Your task to perform on an android device: delete browsing data in the chrome app Image 0: 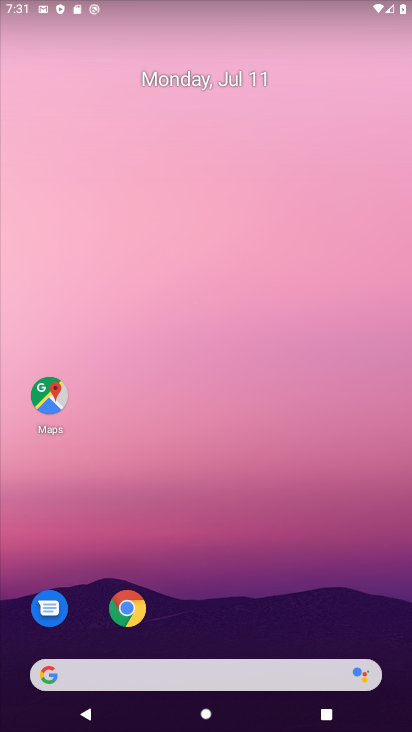
Step 0: click (296, 628)
Your task to perform on an android device: delete browsing data in the chrome app Image 1: 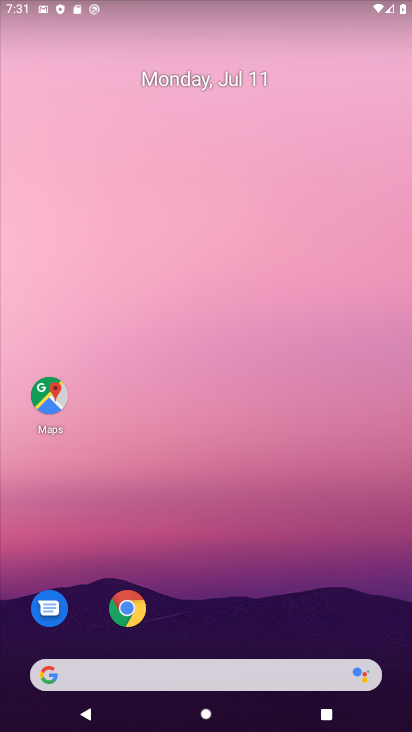
Step 1: click (126, 624)
Your task to perform on an android device: delete browsing data in the chrome app Image 2: 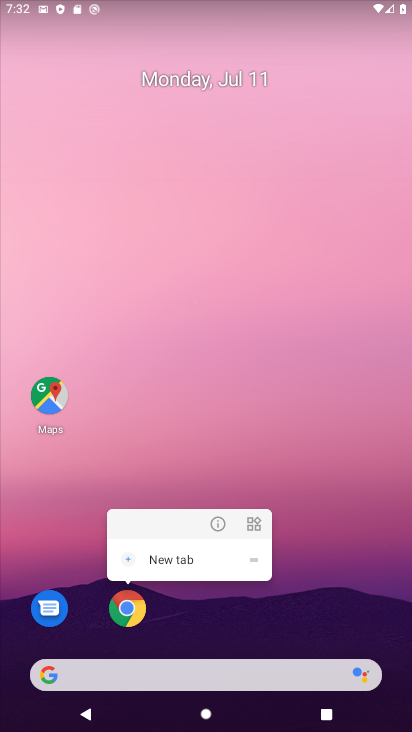
Step 2: click (126, 624)
Your task to perform on an android device: delete browsing data in the chrome app Image 3: 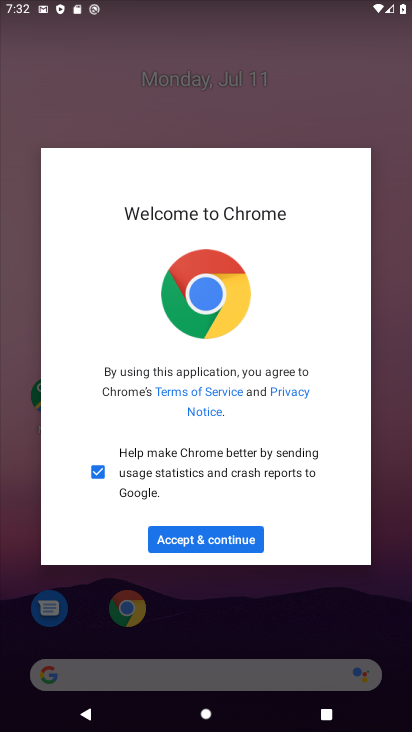
Step 3: click (245, 534)
Your task to perform on an android device: delete browsing data in the chrome app Image 4: 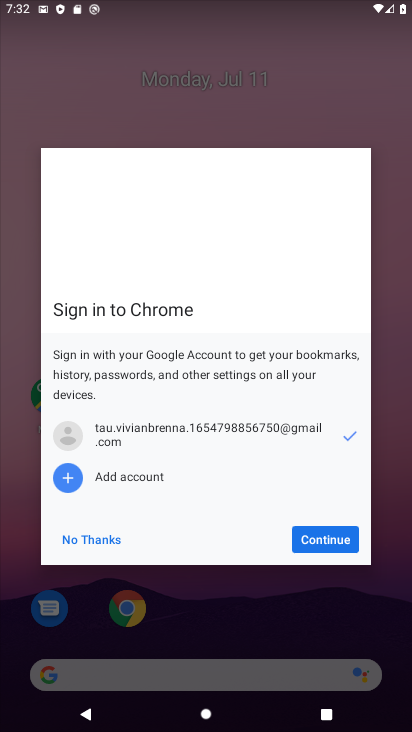
Step 4: click (319, 537)
Your task to perform on an android device: delete browsing data in the chrome app Image 5: 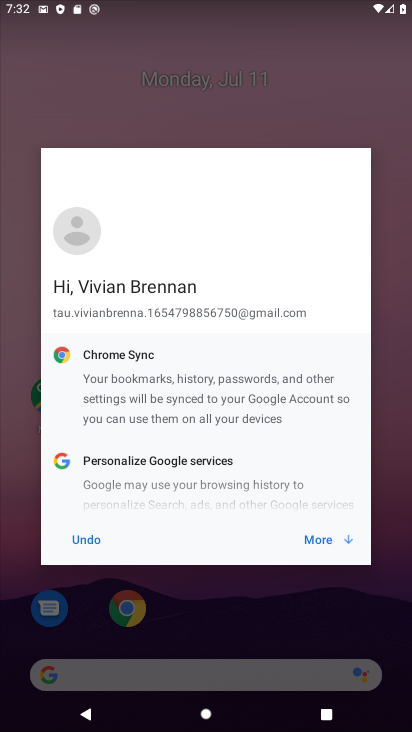
Step 5: click (319, 537)
Your task to perform on an android device: delete browsing data in the chrome app Image 6: 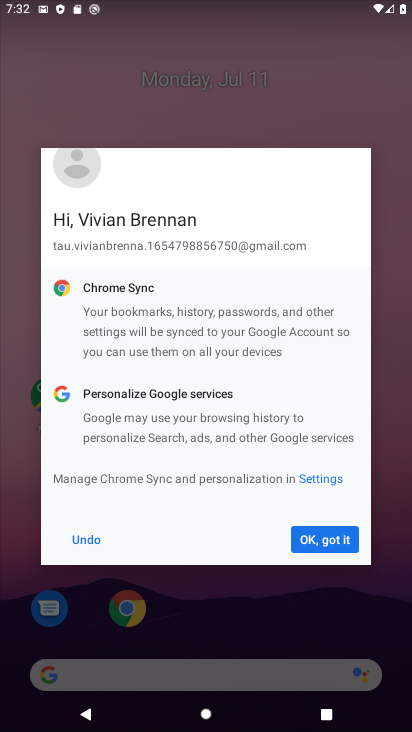
Step 6: click (319, 537)
Your task to perform on an android device: delete browsing data in the chrome app Image 7: 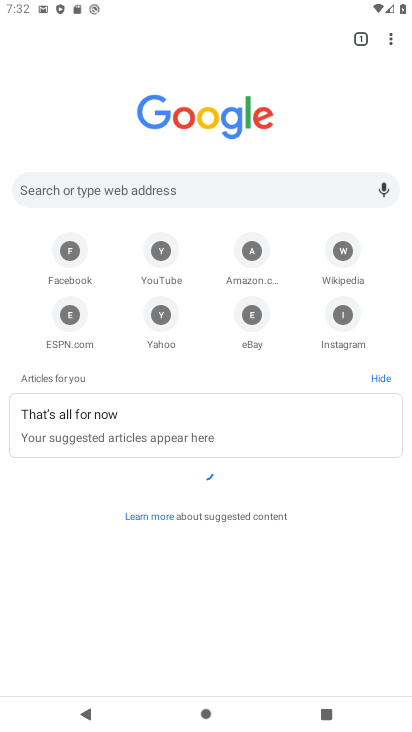
Step 7: click (386, 33)
Your task to perform on an android device: delete browsing data in the chrome app Image 8: 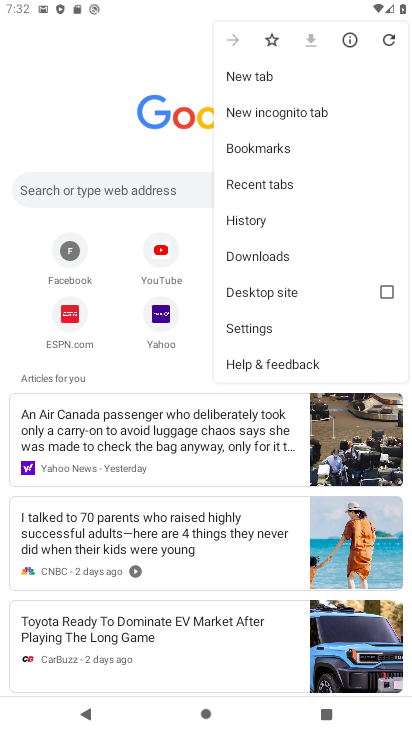
Step 8: click (268, 225)
Your task to perform on an android device: delete browsing data in the chrome app Image 9: 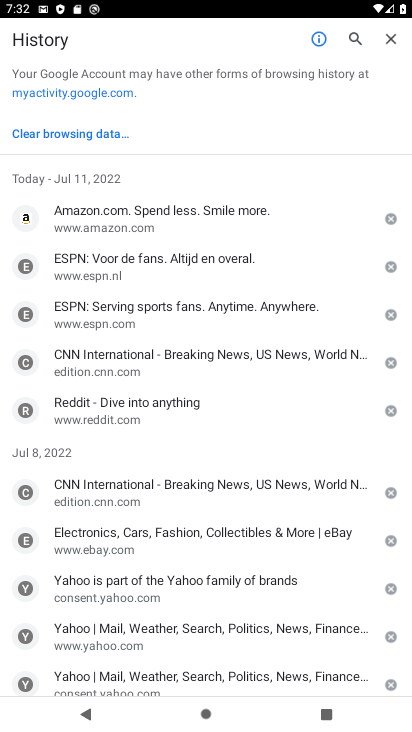
Step 9: click (35, 141)
Your task to perform on an android device: delete browsing data in the chrome app Image 10: 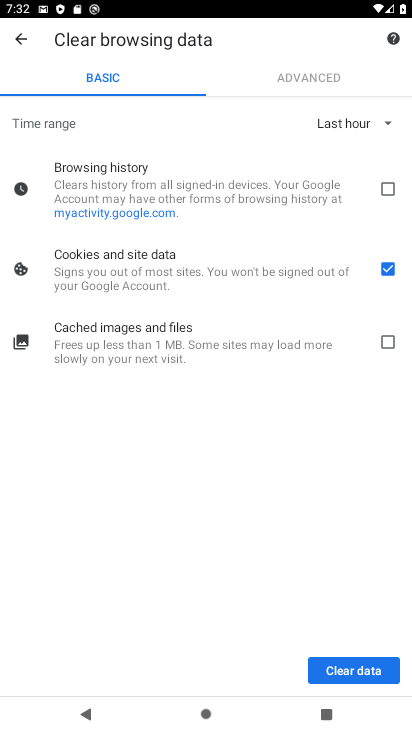
Step 10: click (358, 679)
Your task to perform on an android device: delete browsing data in the chrome app Image 11: 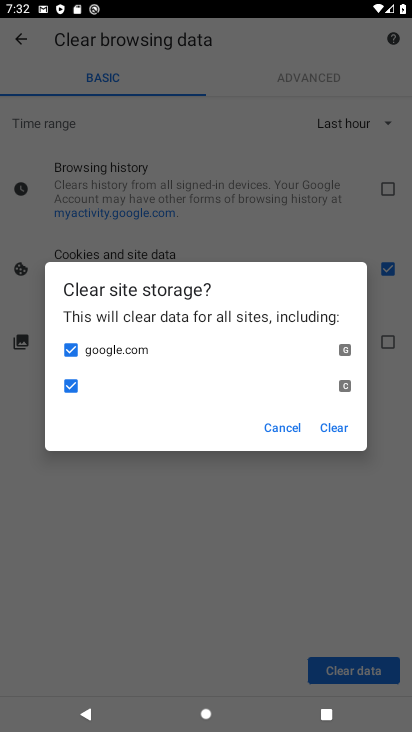
Step 11: click (332, 435)
Your task to perform on an android device: delete browsing data in the chrome app Image 12: 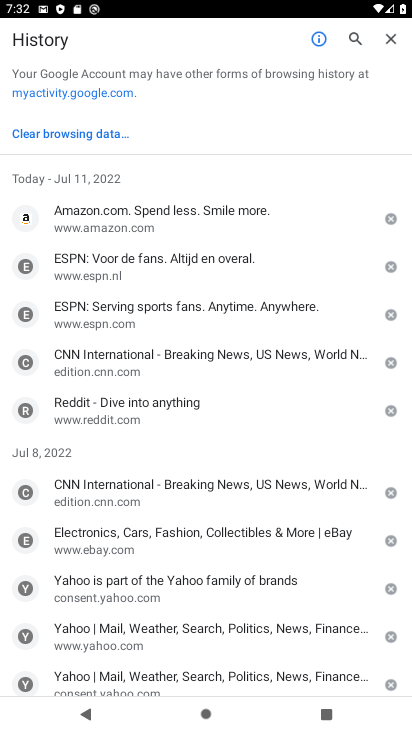
Step 12: task complete